Your task to perform on an android device: When is my next meeting? Image 0: 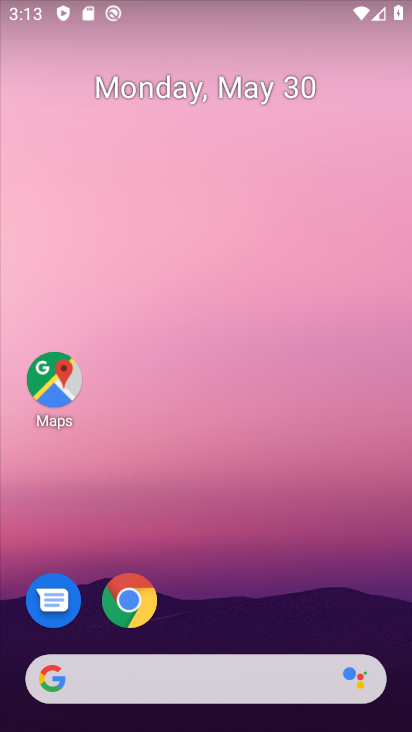
Step 0: drag from (244, 630) to (274, 103)
Your task to perform on an android device: When is my next meeting? Image 1: 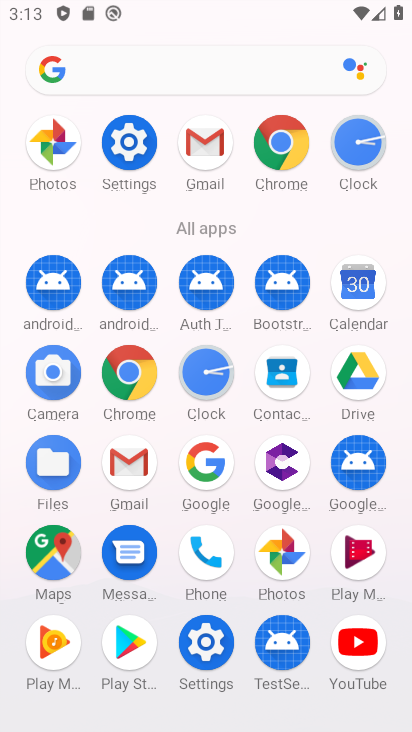
Step 1: click (368, 297)
Your task to perform on an android device: When is my next meeting? Image 2: 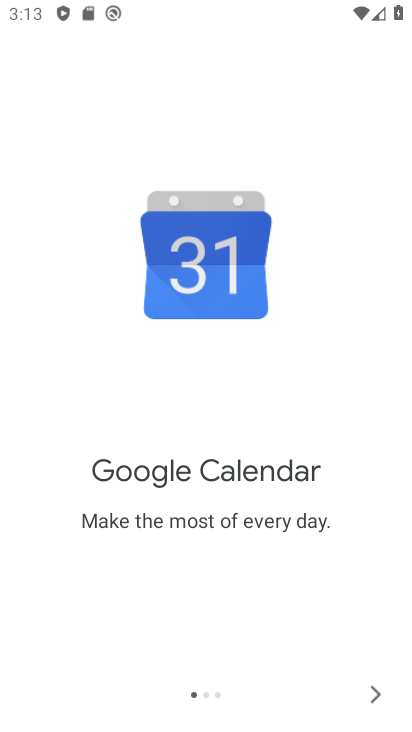
Step 2: click (371, 695)
Your task to perform on an android device: When is my next meeting? Image 3: 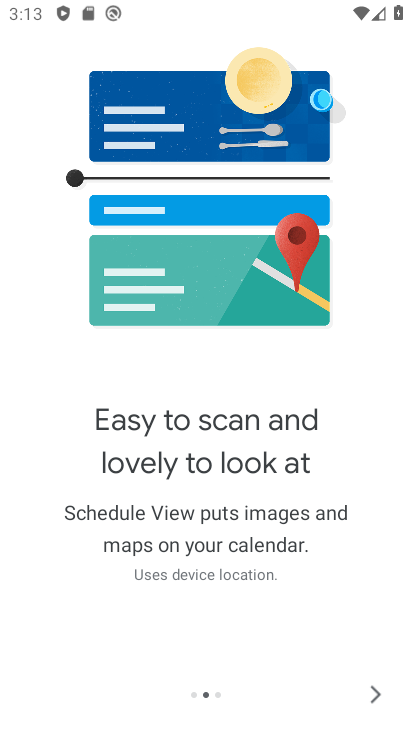
Step 3: click (371, 695)
Your task to perform on an android device: When is my next meeting? Image 4: 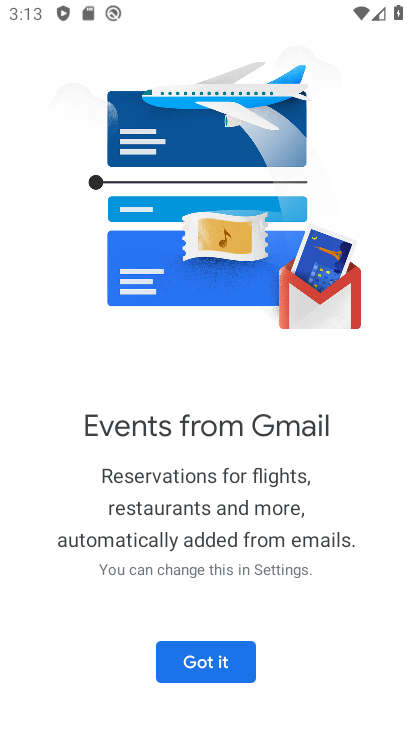
Step 4: click (231, 648)
Your task to perform on an android device: When is my next meeting? Image 5: 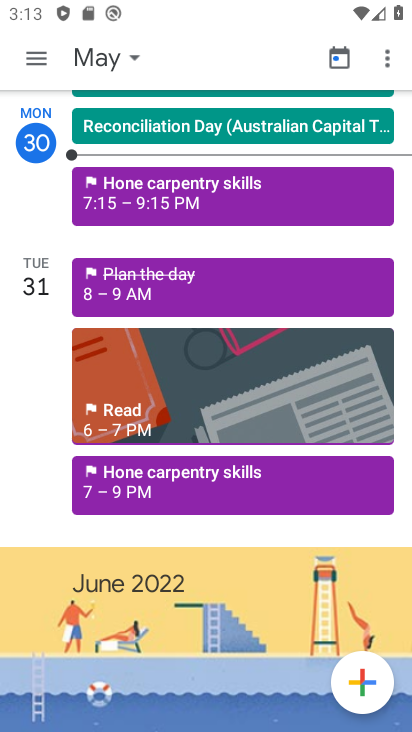
Step 5: task complete